Your task to perform on an android device: Open Chrome and go to the settings page Image 0: 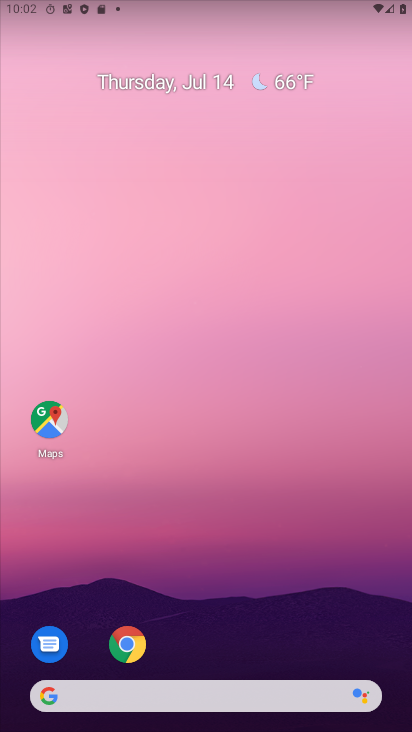
Step 0: drag from (299, 586) to (253, 274)
Your task to perform on an android device: Open Chrome and go to the settings page Image 1: 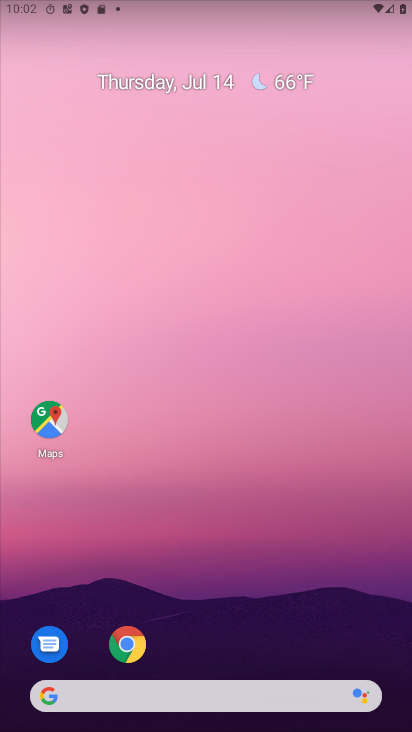
Step 1: drag from (238, 551) to (250, 260)
Your task to perform on an android device: Open Chrome and go to the settings page Image 2: 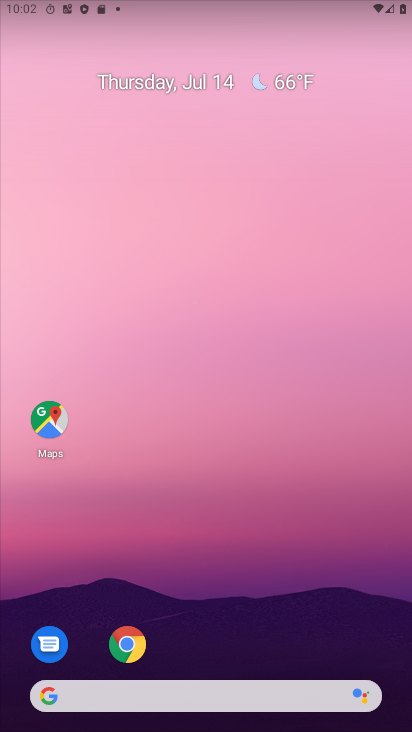
Step 2: drag from (210, 653) to (242, 200)
Your task to perform on an android device: Open Chrome and go to the settings page Image 3: 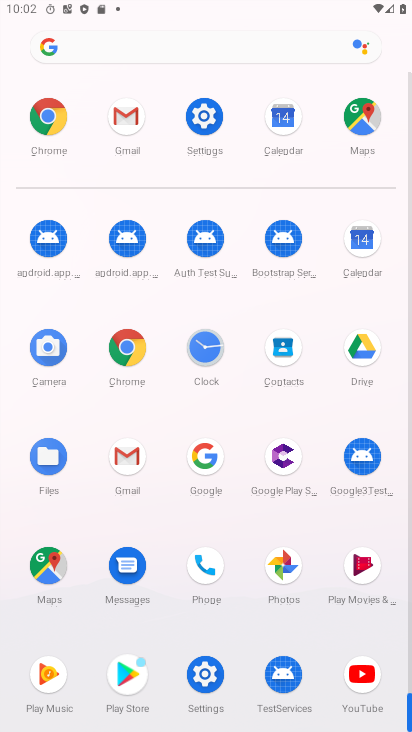
Step 3: click (212, 673)
Your task to perform on an android device: Open Chrome and go to the settings page Image 4: 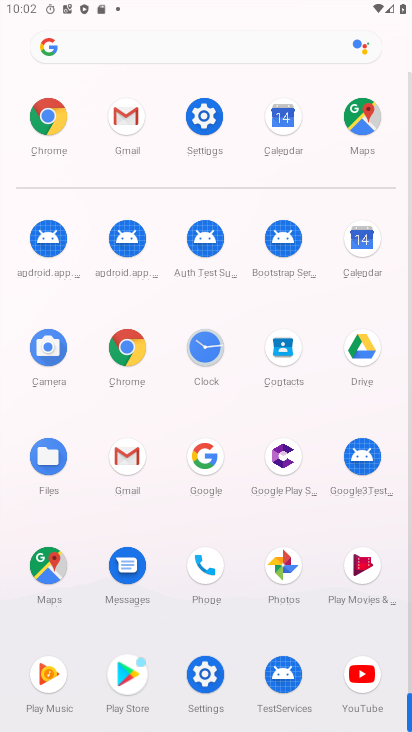
Step 4: click (212, 673)
Your task to perform on an android device: Open Chrome and go to the settings page Image 5: 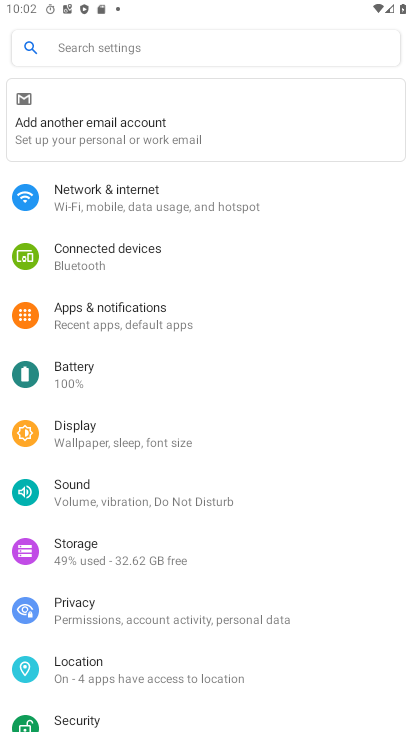
Step 5: drag from (59, 543) to (157, 338)
Your task to perform on an android device: Open Chrome and go to the settings page Image 6: 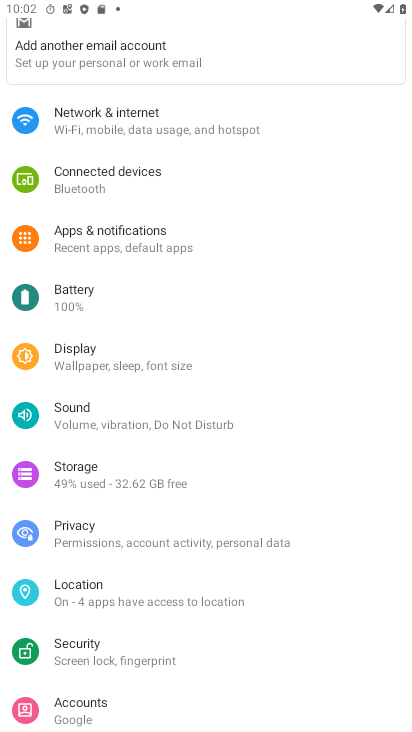
Step 6: press back button
Your task to perform on an android device: Open Chrome and go to the settings page Image 7: 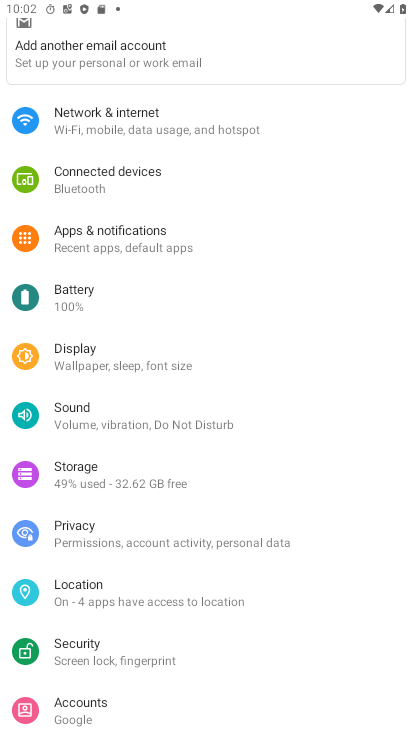
Step 7: press back button
Your task to perform on an android device: Open Chrome and go to the settings page Image 8: 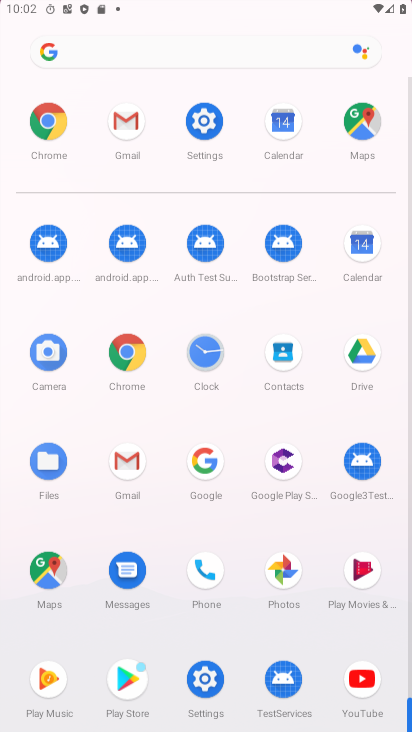
Step 8: press back button
Your task to perform on an android device: Open Chrome and go to the settings page Image 9: 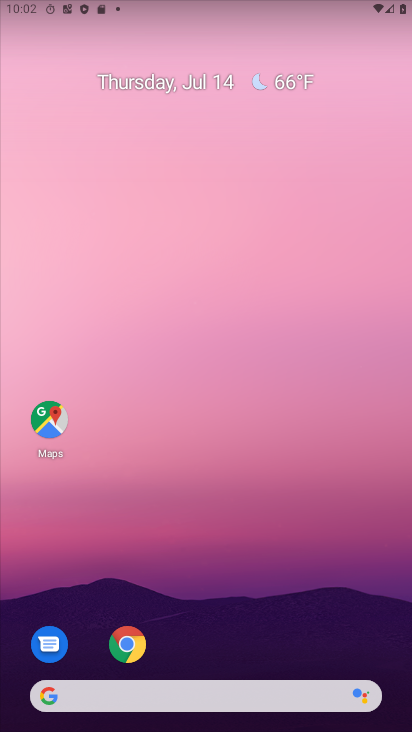
Step 9: drag from (226, 482) to (196, 264)
Your task to perform on an android device: Open Chrome and go to the settings page Image 10: 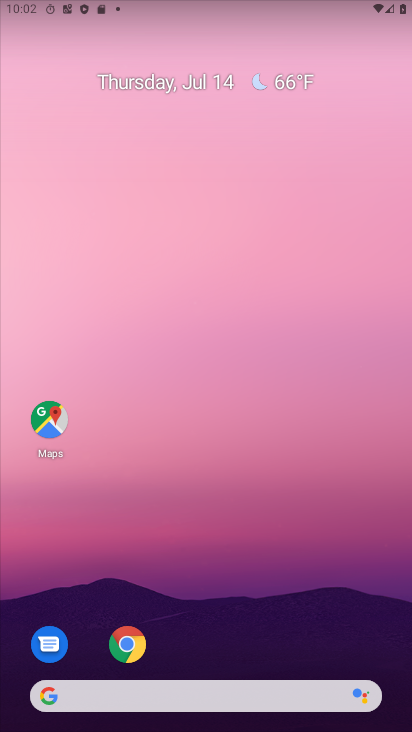
Step 10: drag from (174, 605) to (156, 260)
Your task to perform on an android device: Open Chrome and go to the settings page Image 11: 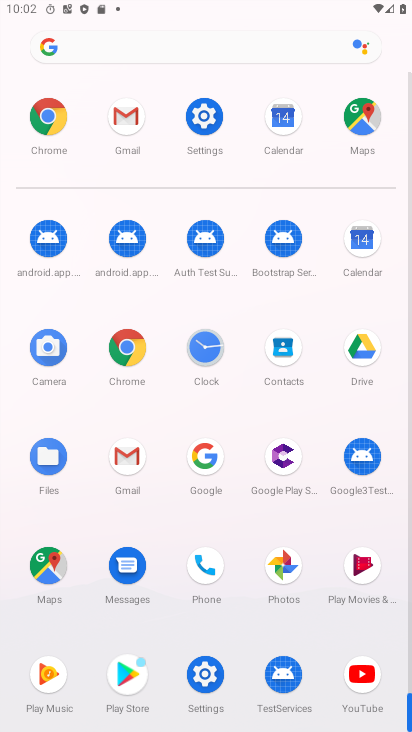
Step 11: drag from (196, 599) to (196, 378)
Your task to perform on an android device: Open Chrome and go to the settings page Image 12: 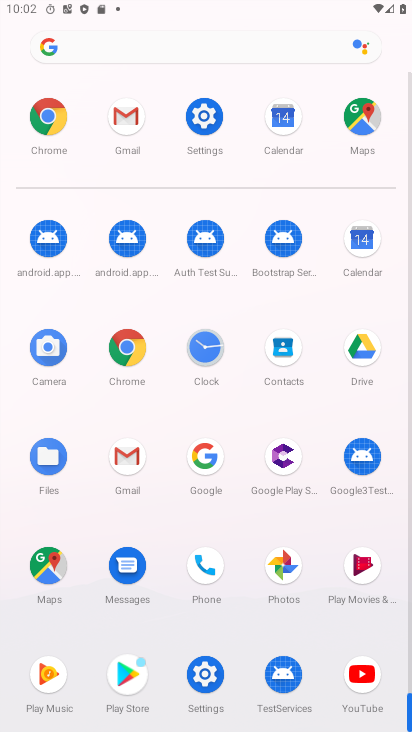
Step 12: click (230, 683)
Your task to perform on an android device: Open Chrome and go to the settings page Image 13: 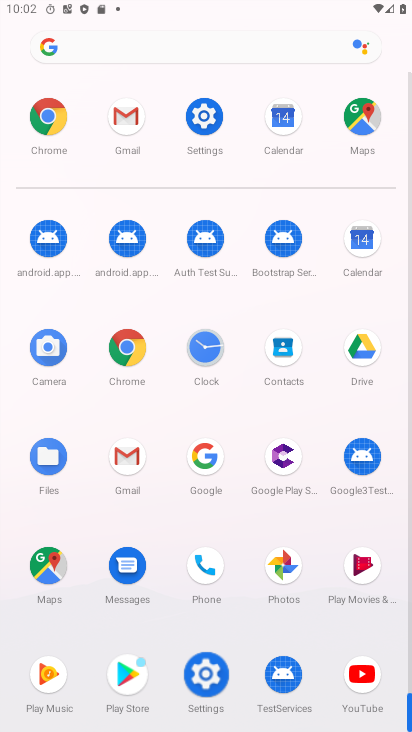
Step 13: click (203, 690)
Your task to perform on an android device: Open Chrome and go to the settings page Image 14: 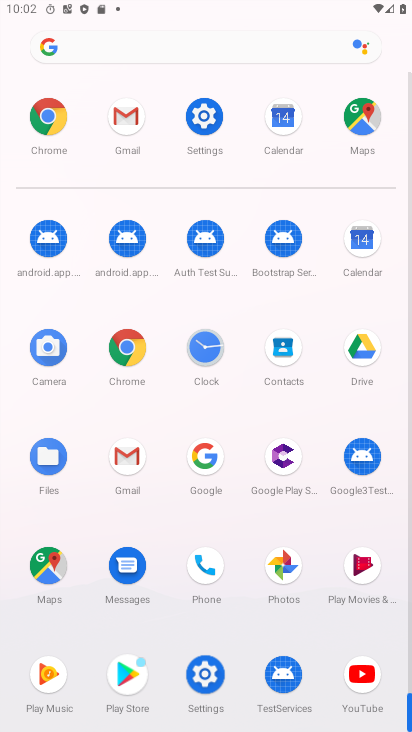
Step 14: click (203, 690)
Your task to perform on an android device: Open Chrome and go to the settings page Image 15: 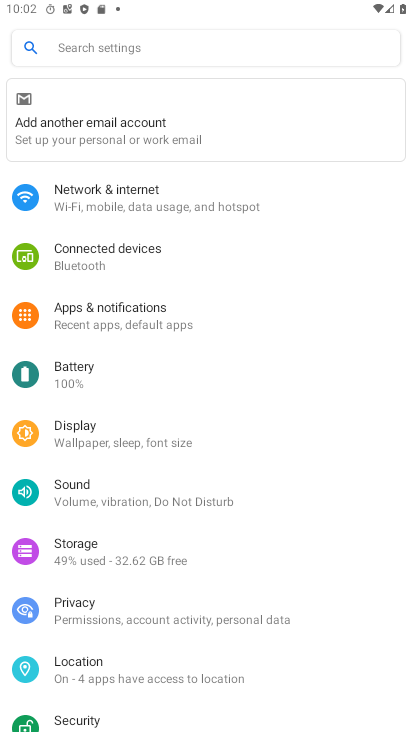
Step 15: press back button
Your task to perform on an android device: Open Chrome and go to the settings page Image 16: 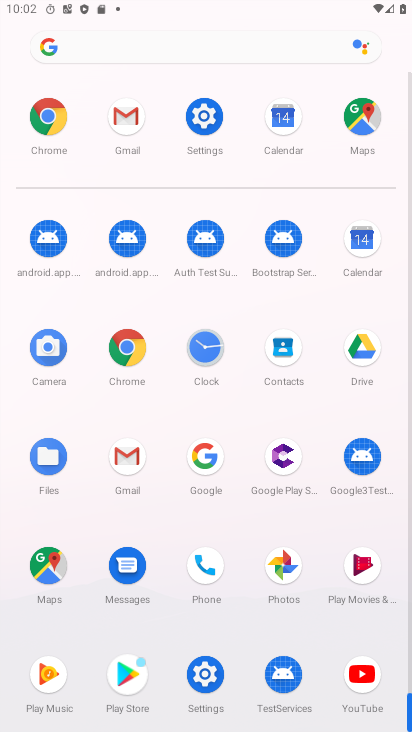
Step 16: click (38, 104)
Your task to perform on an android device: Open Chrome and go to the settings page Image 17: 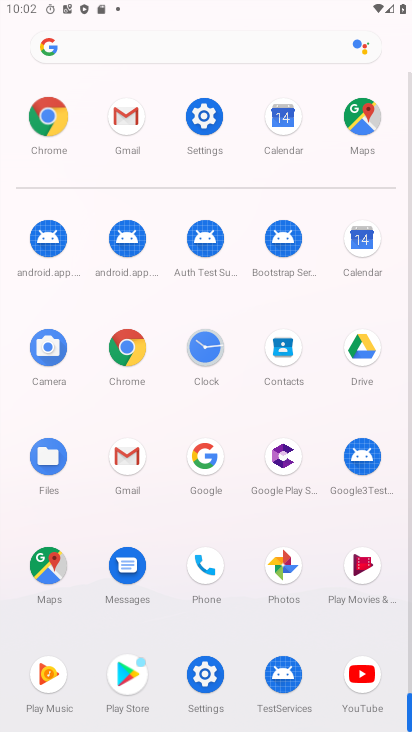
Step 17: click (38, 104)
Your task to perform on an android device: Open Chrome and go to the settings page Image 18: 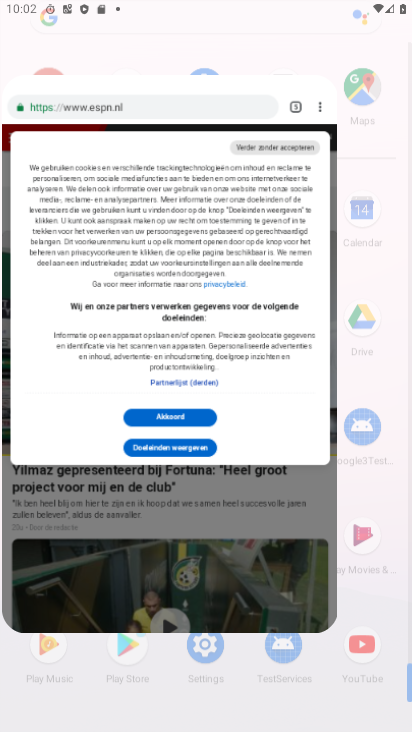
Step 18: click (38, 104)
Your task to perform on an android device: Open Chrome and go to the settings page Image 19: 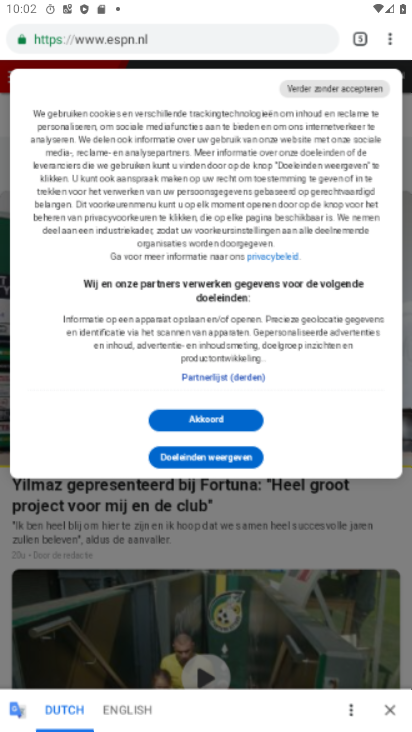
Step 19: drag from (387, 35) to (240, 480)
Your task to perform on an android device: Open Chrome and go to the settings page Image 20: 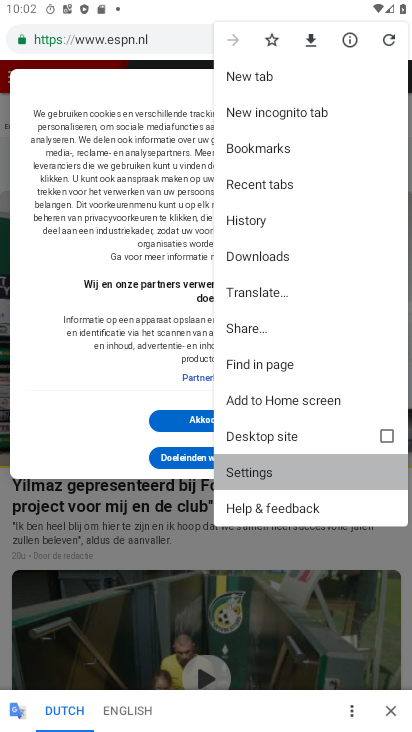
Step 20: click (240, 480)
Your task to perform on an android device: Open Chrome and go to the settings page Image 21: 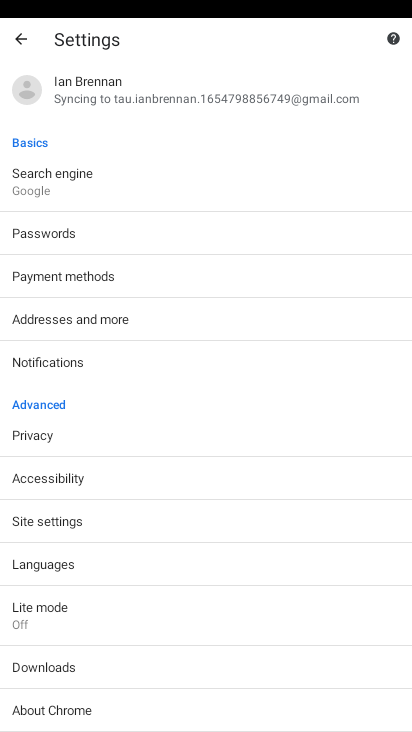
Step 21: click (44, 516)
Your task to perform on an android device: Open Chrome and go to the settings page Image 22: 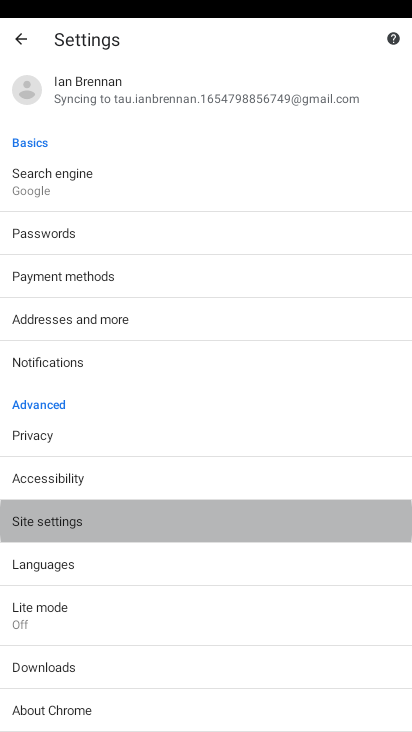
Step 22: click (50, 520)
Your task to perform on an android device: Open Chrome and go to the settings page Image 23: 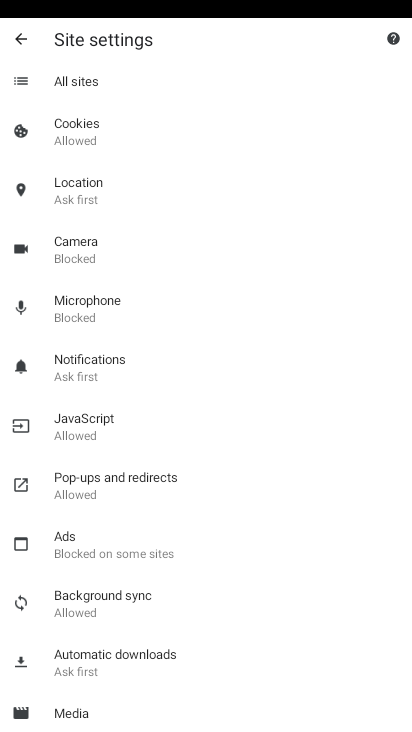
Step 23: task complete